Your task to perform on an android device: change the clock display to digital Image 0: 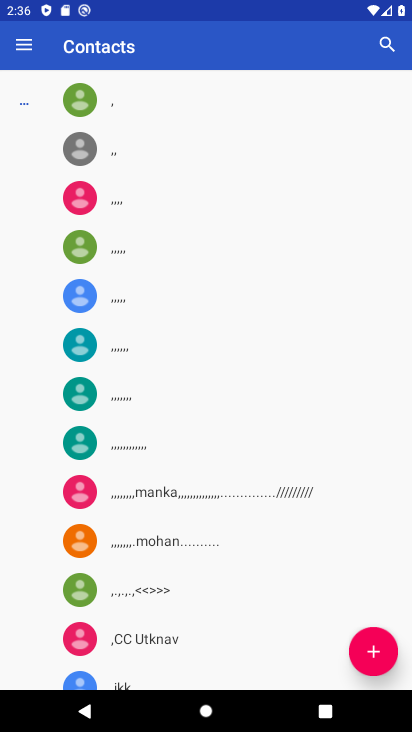
Step 0: press home button
Your task to perform on an android device: change the clock display to digital Image 1: 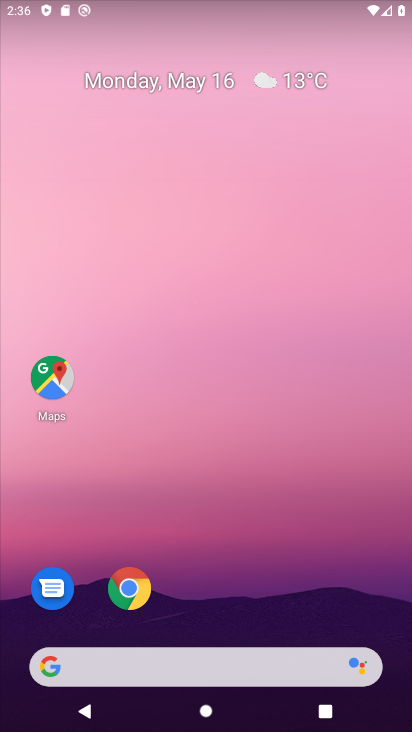
Step 1: drag from (210, 621) to (186, 164)
Your task to perform on an android device: change the clock display to digital Image 2: 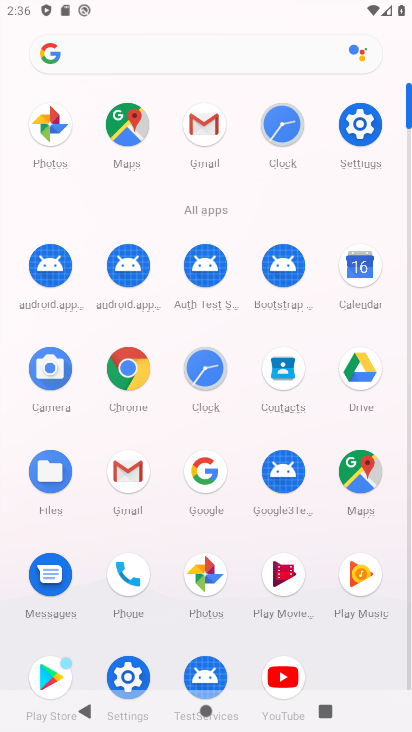
Step 2: drag from (231, 622) to (272, 147)
Your task to perform on an android device: change the clock display to digital Image 3: 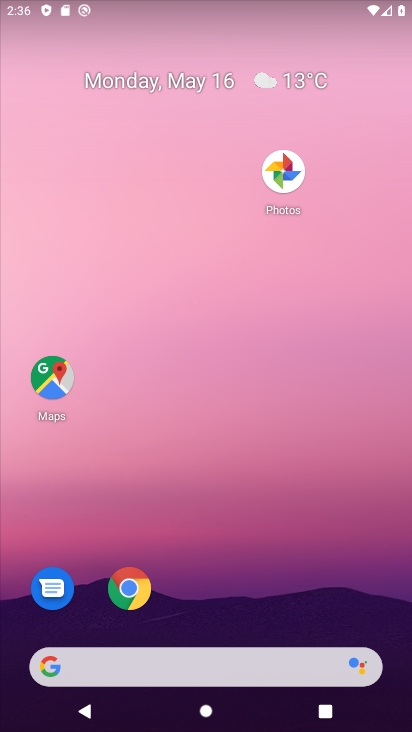
Step 3: click (289, 124)
Your task to perform on an android device: change the clock display to digital Image 4: 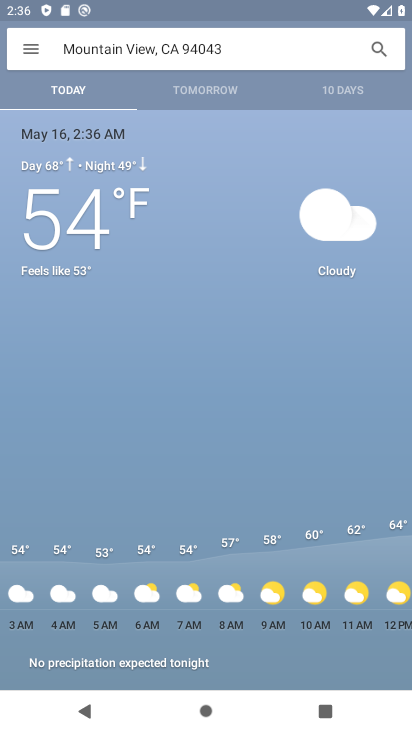
Step 4: press home button
Your task to perform on an android device: change the clock display to digital Image 5: 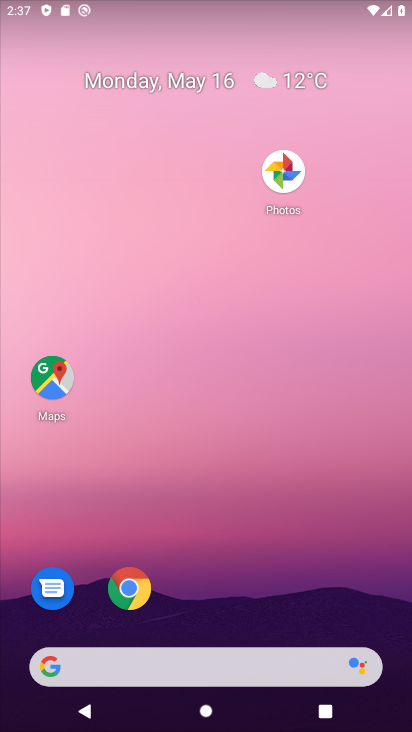
Step 5: drag from (287, 203) to (376, 9)
Your task to perform on an android device: change the clock display to digital Image 6: 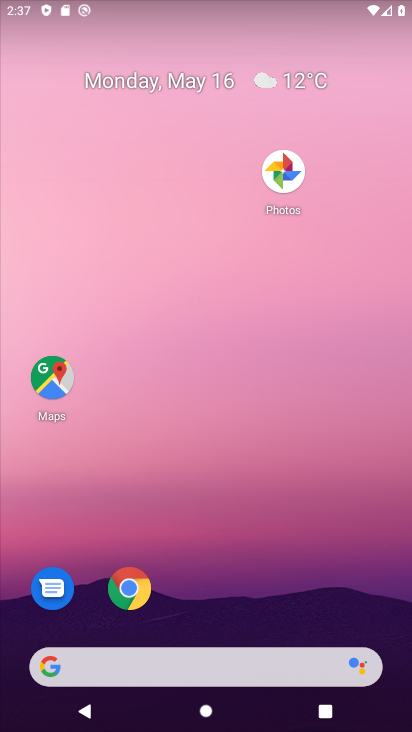
Step 6: drag from (217, 600) to (406, 312)
Your task to perform on an android device: change the clock display to digital Image 7: 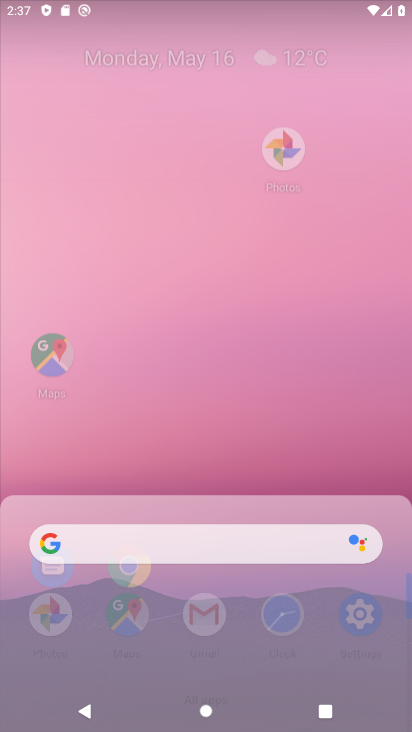
Step 7: click (299, 62)
Your task to perform on an android device: change the clock display to digital Image 8: 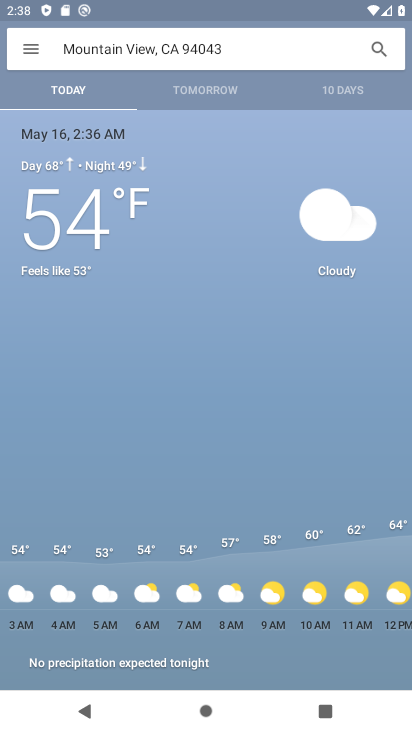
Step 8: press home button
Your task to perform on an android device: change the clock display to digital Image 9: 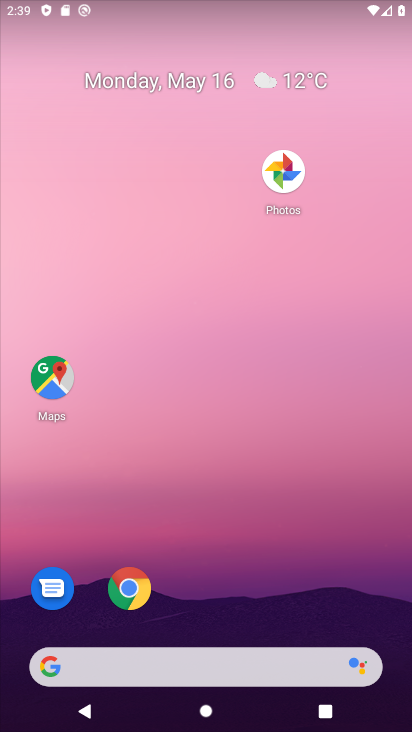
Step 9: click (231, 620)
Your task to perform on an android device: change the clock display to digital Image 10: 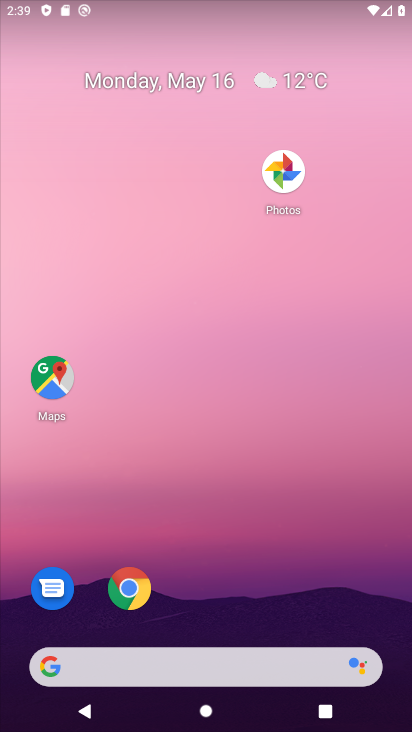
Step 10: drag from (231, 620) to (264, 17)
Your task to perform on an android device: change the clock display to digital Image 11: 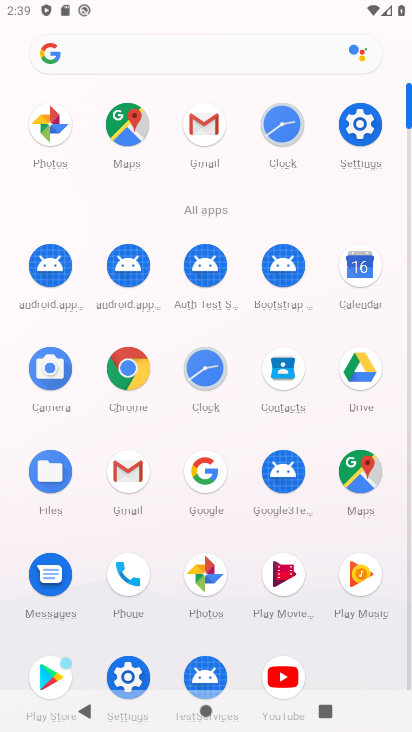
Step 11: click (202, 402)
Your task to perform on an android device: change the clock display to digital Image 12: 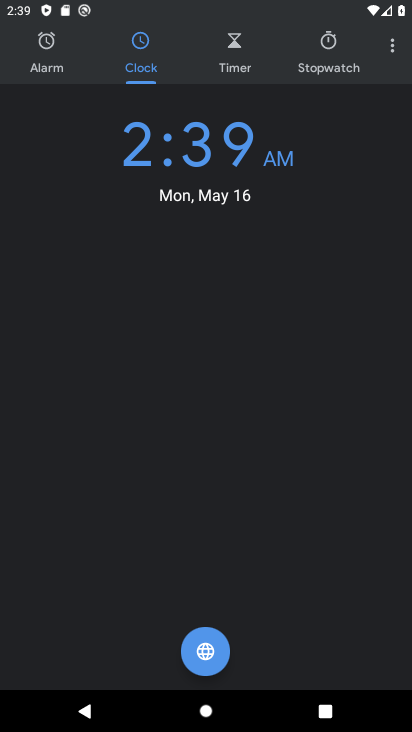
Step 12: click (205, 371)
Your task to perform on an android device: change the clock display to digital Image 13: 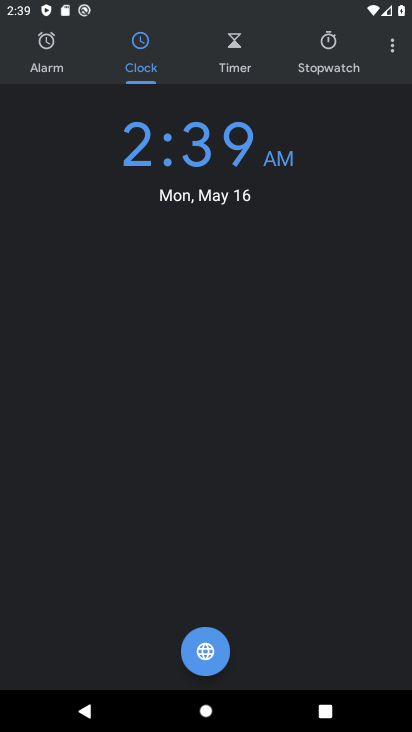
Step 13: click (388, 40)
Your task to perform on an android device: change the clock display to digital Image 14: 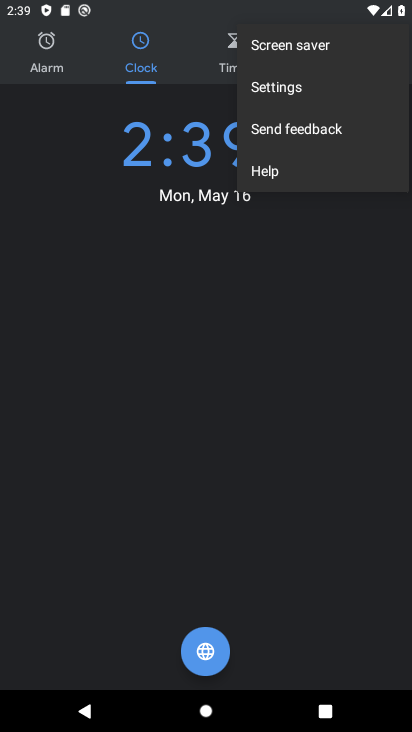
Step 14: click (321, 88)
Your task to perform on an android device: change the clock display to digital Image 15: 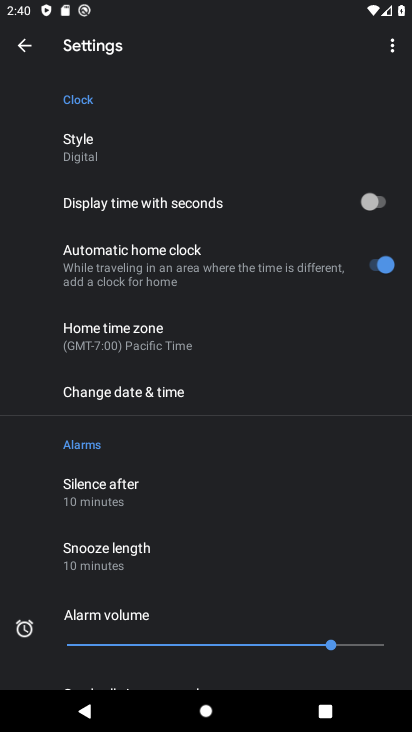
Step 15: task complete